Your task to perform on an android device: Go to Yahoo.com Image 0: 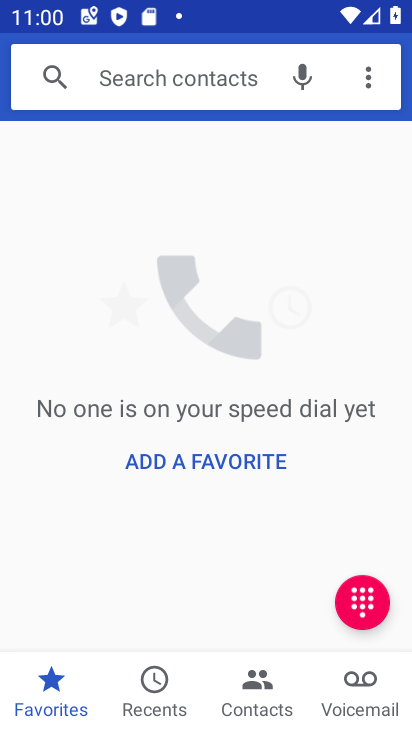
Step 0: press home button
Your task to perform on an android device: Go to Yahoo.com Image 1: 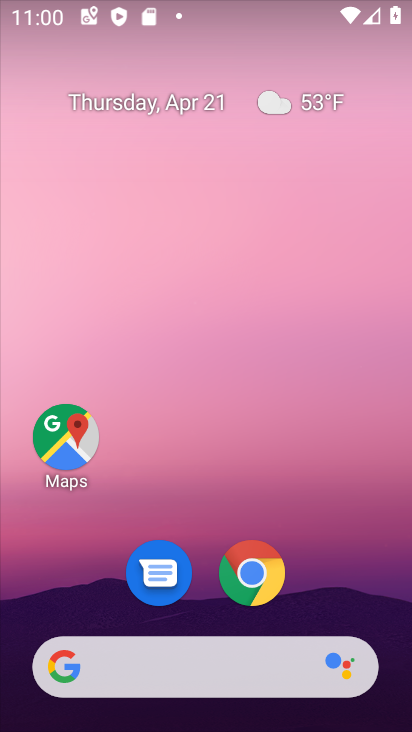
Step 1: drag from (327, 575) to (313, 39)
Your task to perform on an android device: Go to Yahoo.com Image 2: 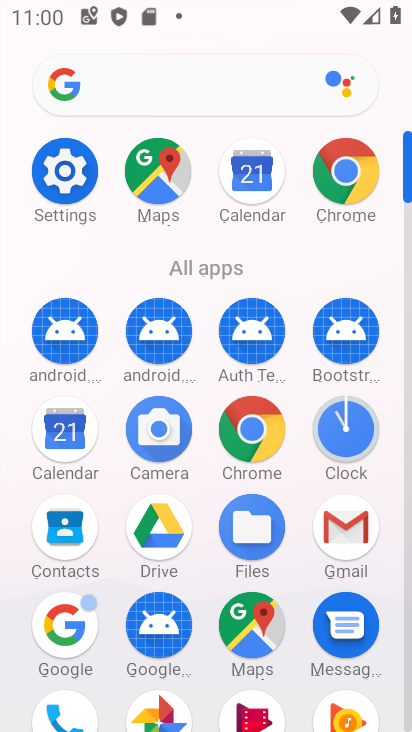
Step 2: click (252, 423)
Your task to perform on an android device: Go to Yahoo.com Image 3: 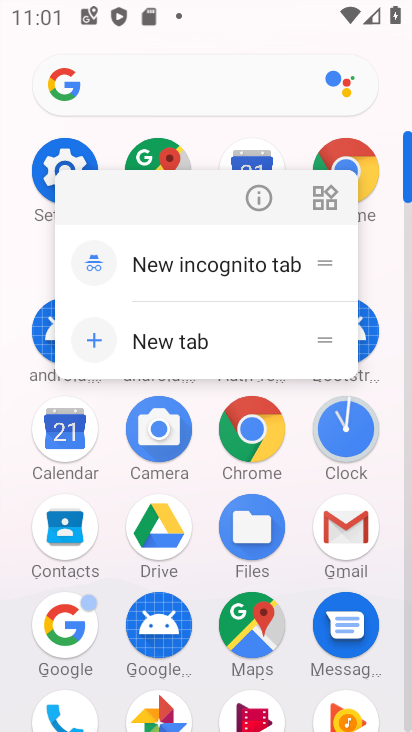
Step 3: click (255, 434)
Your task to perform on an android device: Go to Yahoo.com Image 4: 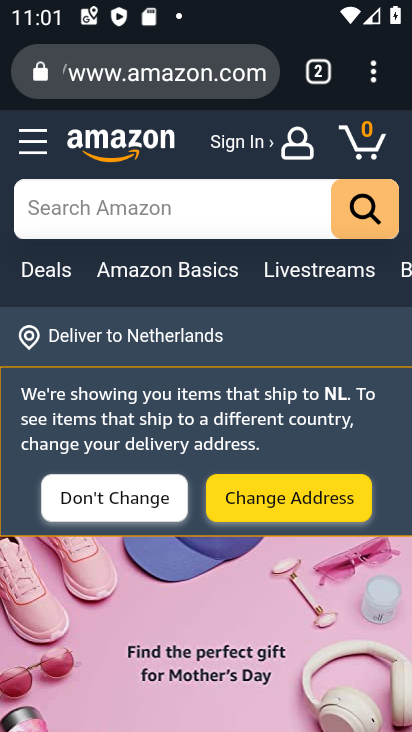
Step 4: drag from (371, 78) to (107, 139)
Your task to perform on an android device: Go to Yahoo.com Image 5: 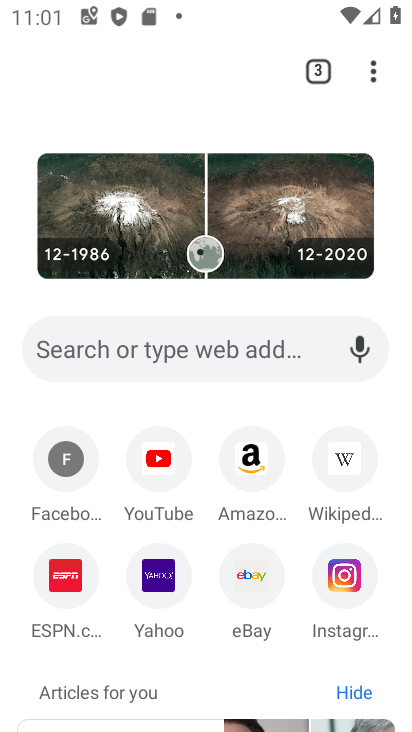
Step 5: click (165, 346)
Your task to perform on an android device: Go to Yahoo.com Image 6: 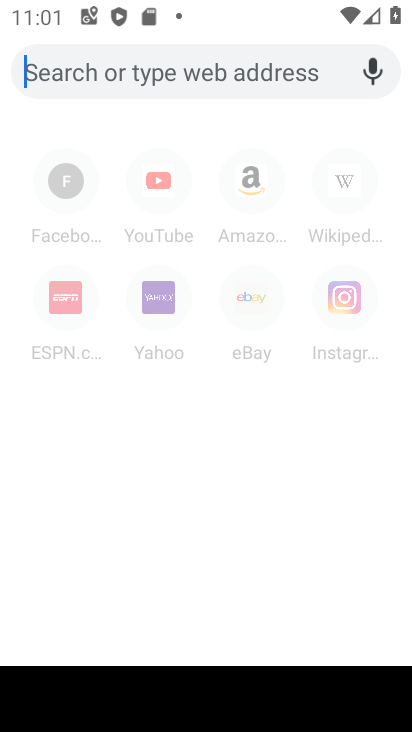
Step 6: type "Yahoo.com"
Your task to perform on an android device: Go to Yahoo.com Image 7: 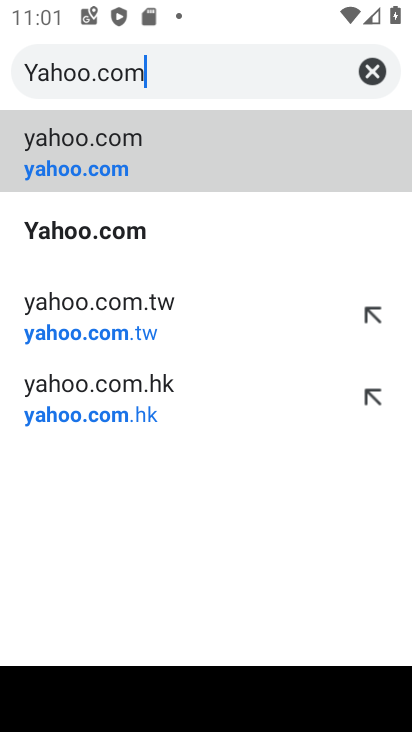
Step 7: click (62, 169)
Your task to perform on an android device: Go to Yahoo.com Image 8: 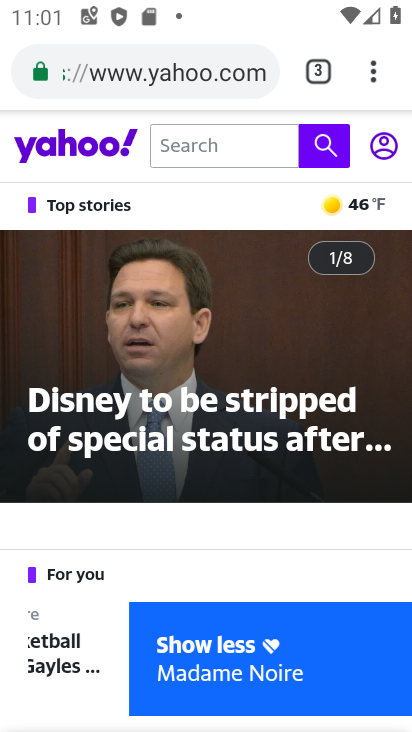
Step 8: task complete